Your task to perform on an android device: toggle show notifications on the lock screen Image 0: 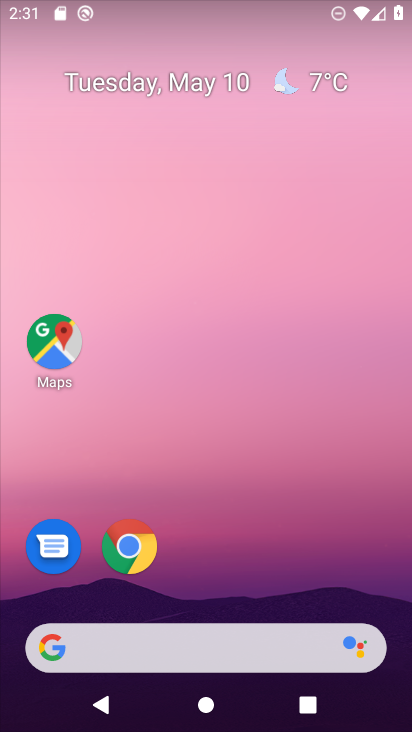
Step 0: drag from (232, 529) to (295, 85)
Your task to perform on an android device: toggle show notifications on the lock screen Image 1: 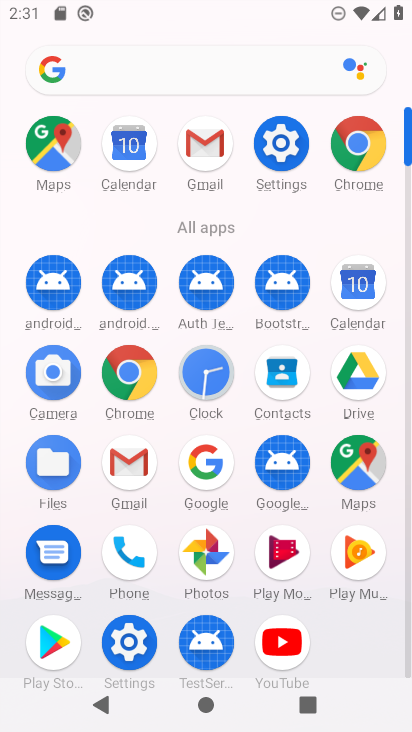
Step 1: click (283, 164)
Your task to perform on an android device: toggle show notifications on the lock screen Image 2: 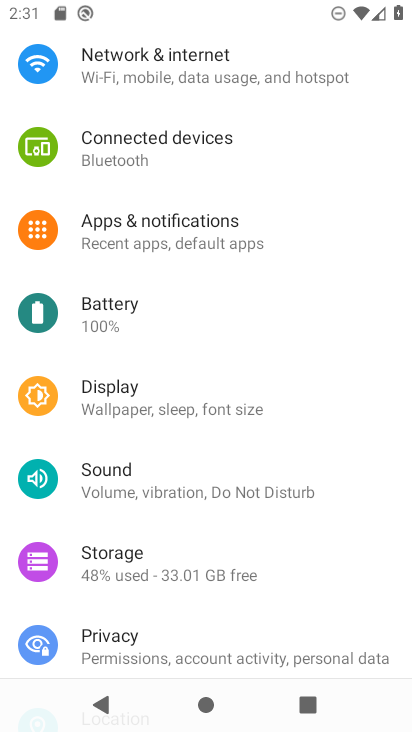
Step 2: drag from (239, 102) to (276, 30)
Your task to perform on an android device: toggle show notifications on the lock screen Image 3: 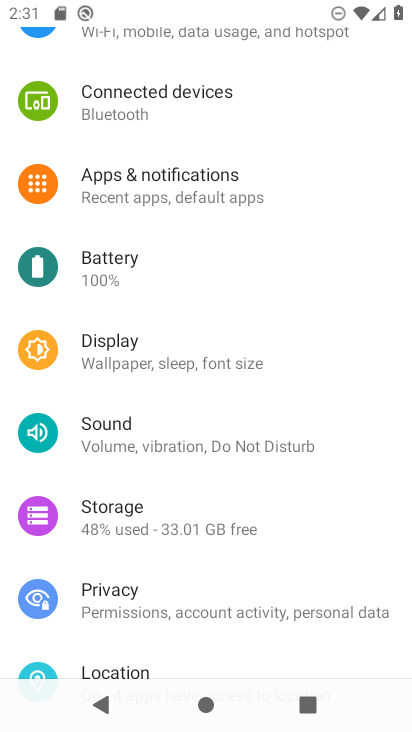
Step 3: click (256, 183)
Your task to perform on an android device: toggle show notifications on the lock screen Image 4: 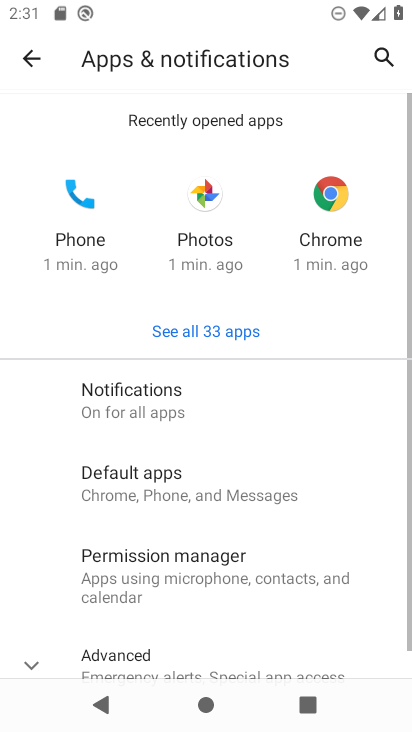
Step 4: click (186, 414)
Your task to perform on an android device: toggle show notifications on the lock screen Image 5: 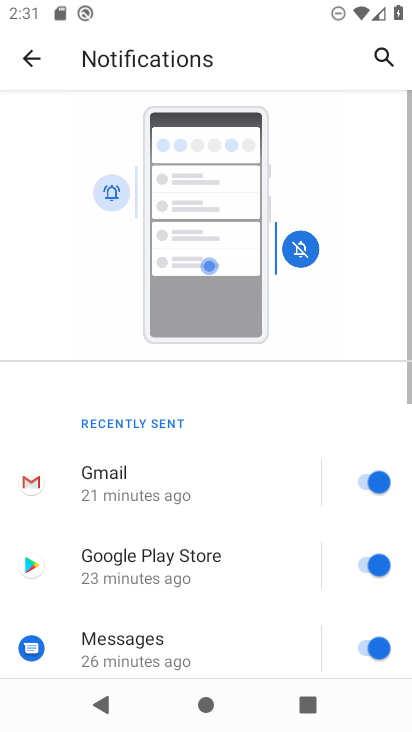
Step 5: drag from (172, 642) to (265, 183)
Your task to perform on an android device: toggle show notifications on the lock screen Image 6: 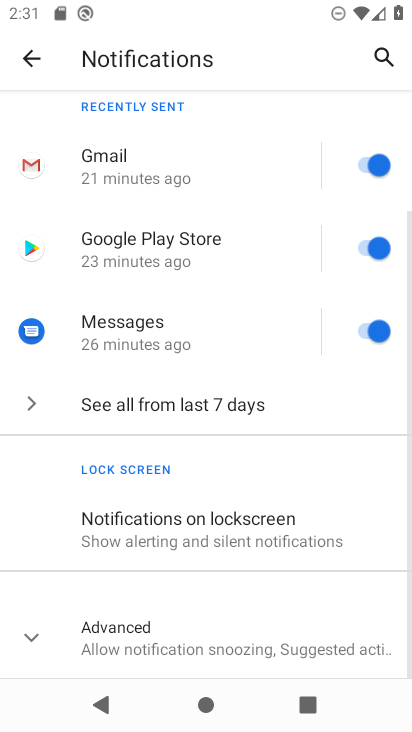
Step 6: click (245, 533)
Your task to perform on an android device: toggle show notifications on the lock screen Image 7: 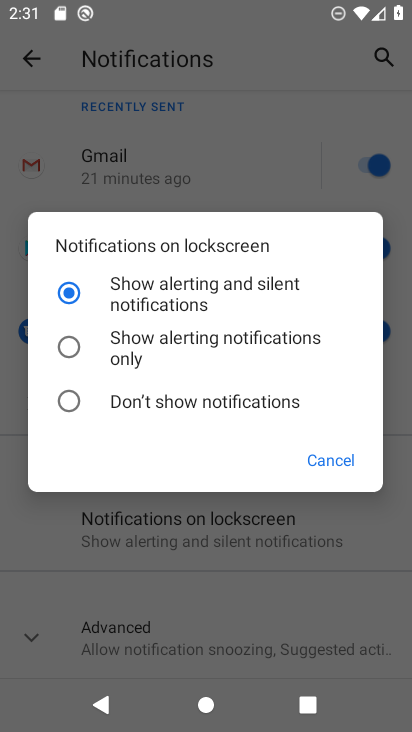
Step 7: click (197, 340)
Your task to perform on an android device: toggle show notifications on the lock screen Image 8: 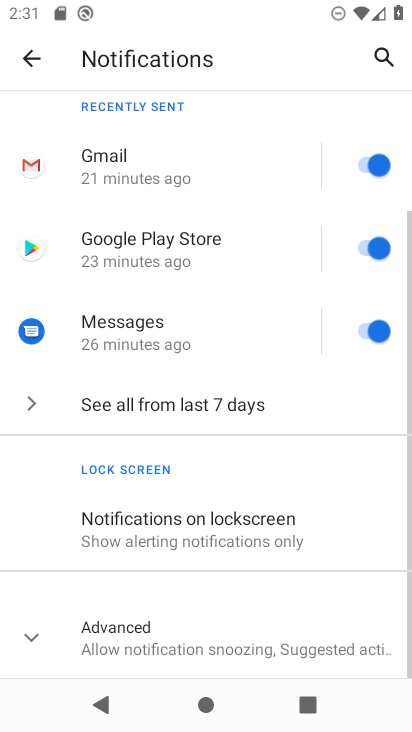
Step 8: task complete